Your task to perform on an android device: snooze an email in the gmail app Image 0: 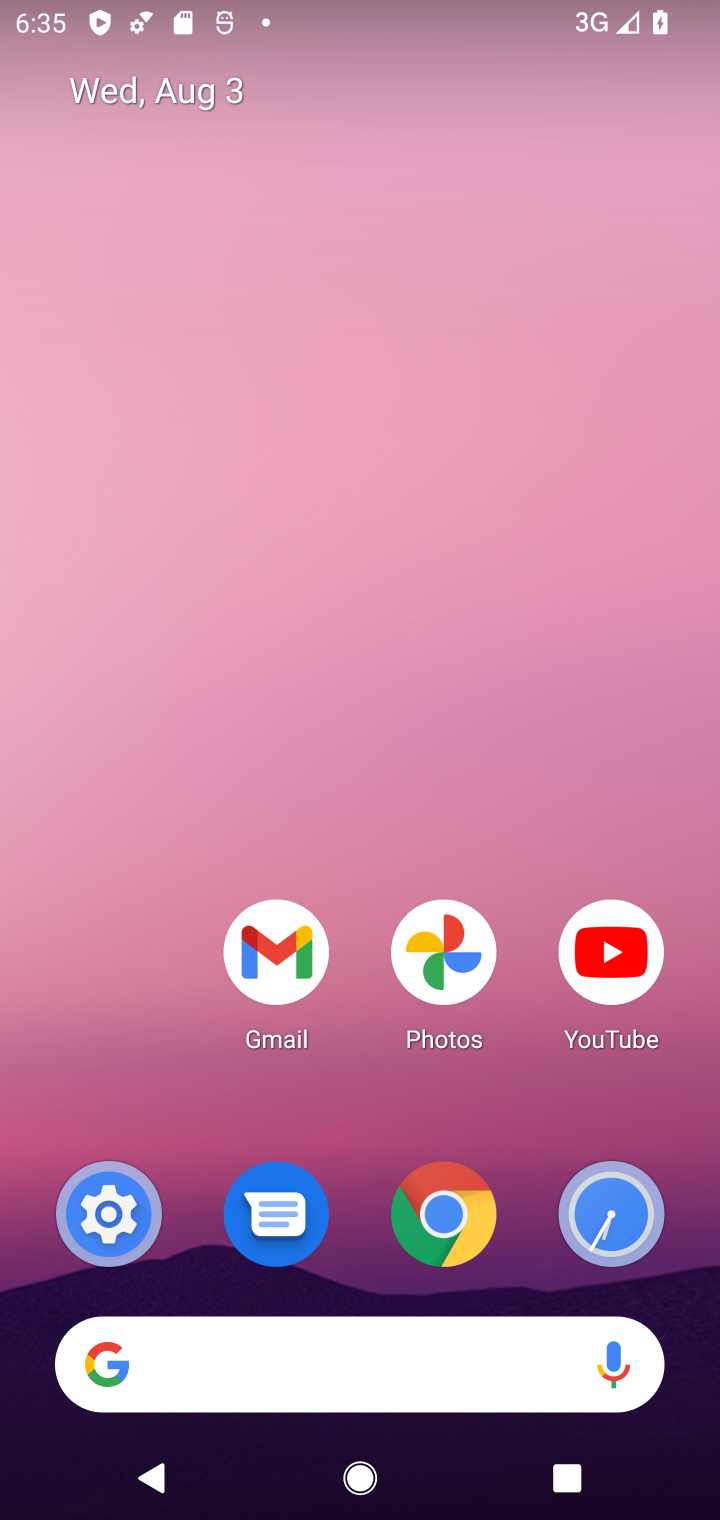
Step 0: drag from (83, 1145) to (236, 101)
Your task to perform on an android device: snooze an email in the gmail app Image 1: 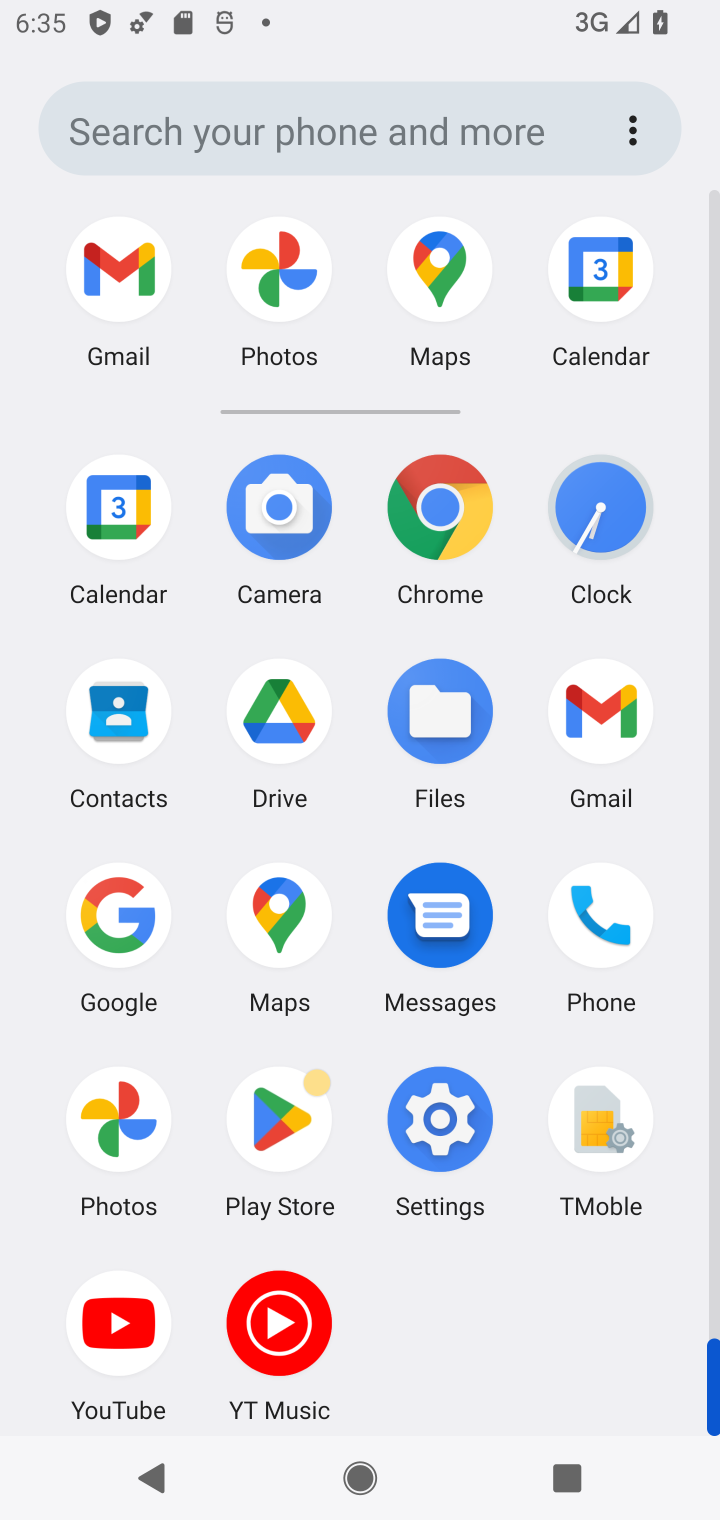
Step 1: click (120, 299)
Your task to perform on an android device: snooze an email in the gmail app Image 2: 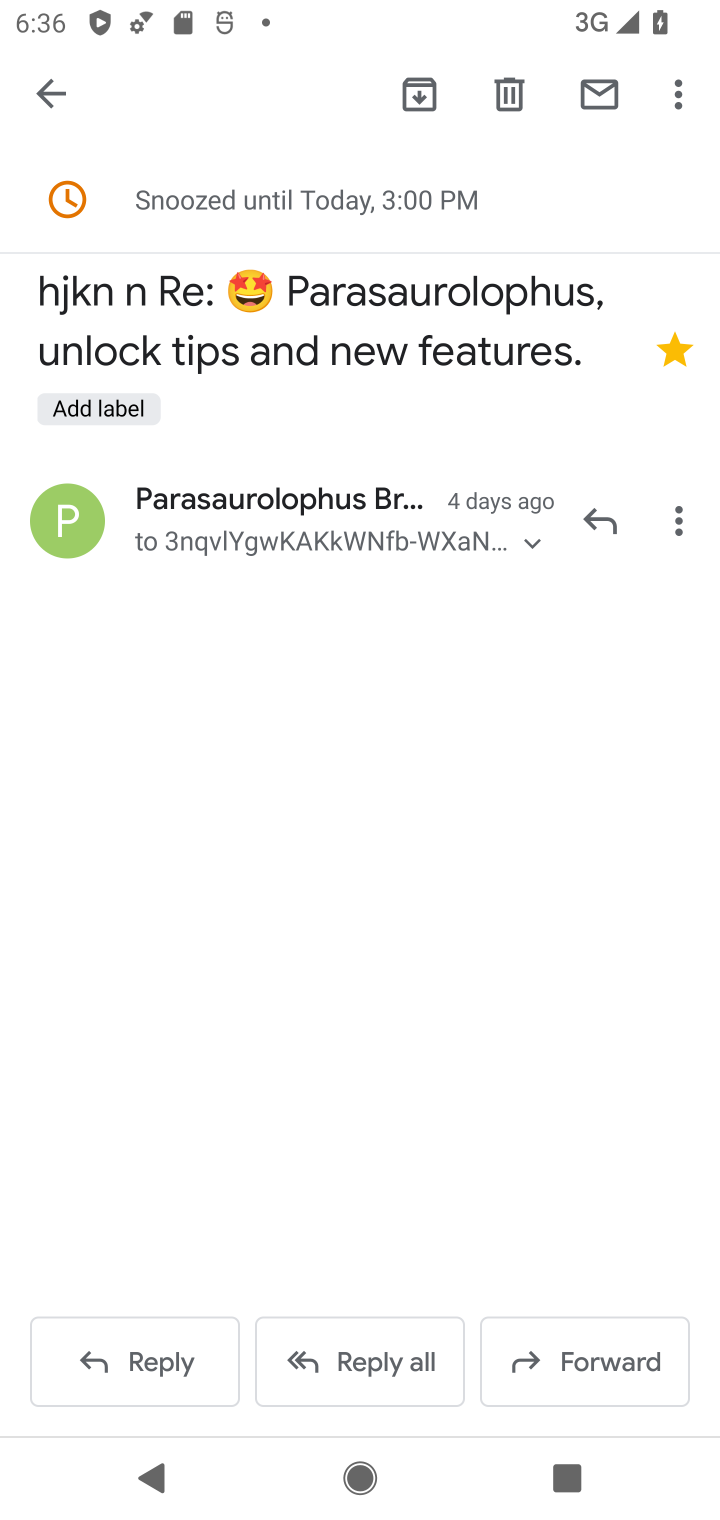
Step 2: click (59, 100)
Your task to perform on an android device: snooze an email in the gmail app Image 3: 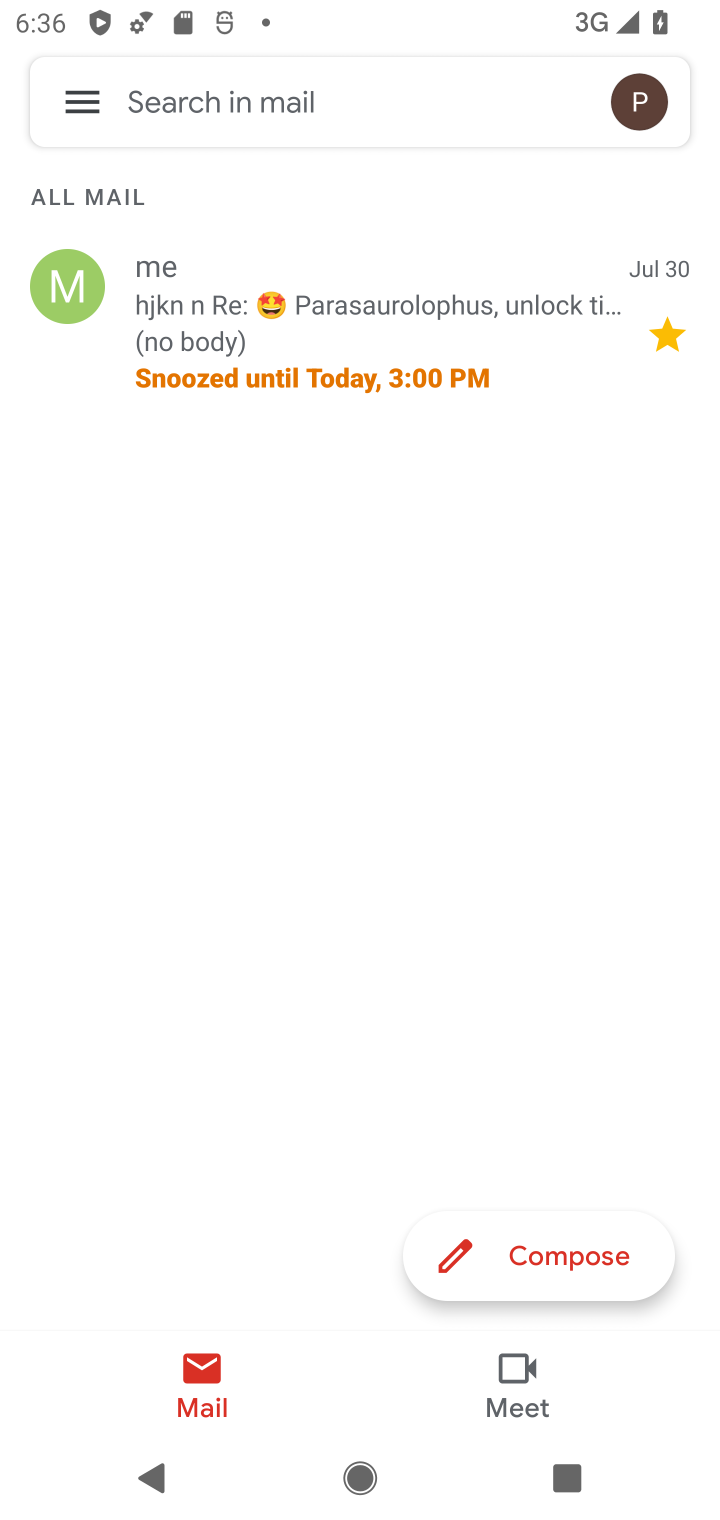
Step 3: click (381, 365)
Your task to perform on an android device: snooze an email in the gmail app Image 4: 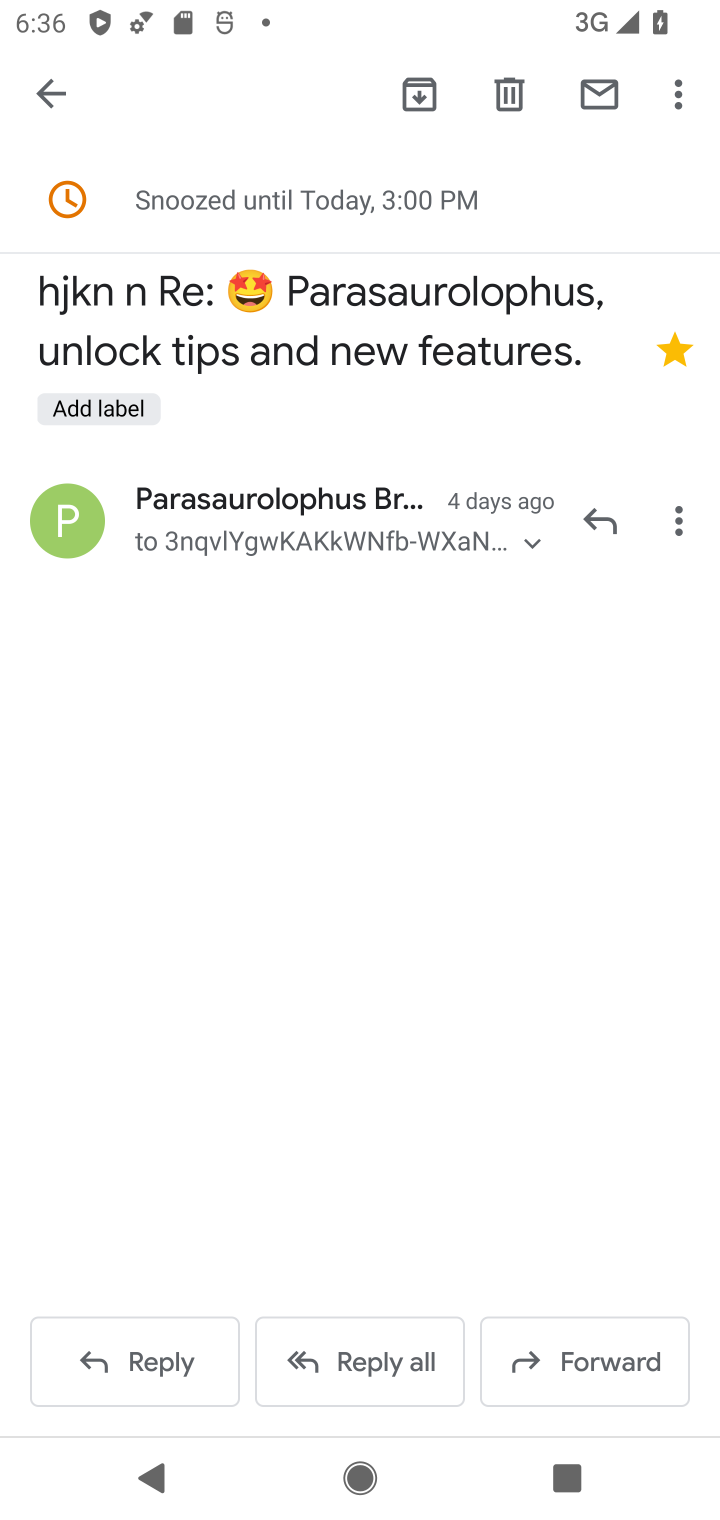
Step 4: task complete